Your task to perform on an android device: Search for vegetarian restaurants on Maps Image 0: 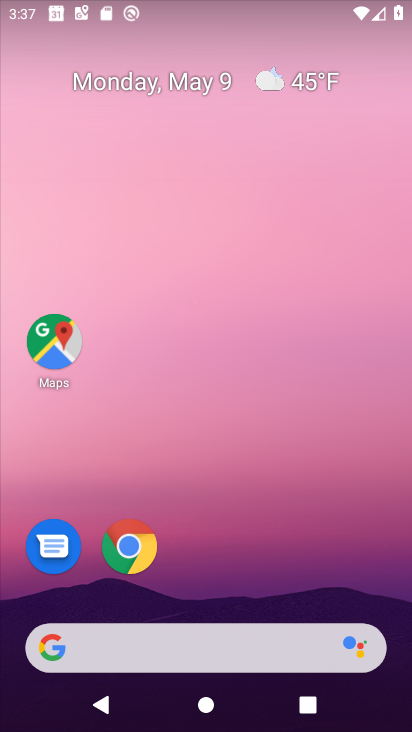
Step 0: drag from (208, 614) to (269, 322)
Your task to perform on an android device: Search for vegetarian restaurants on Maps Image 1: 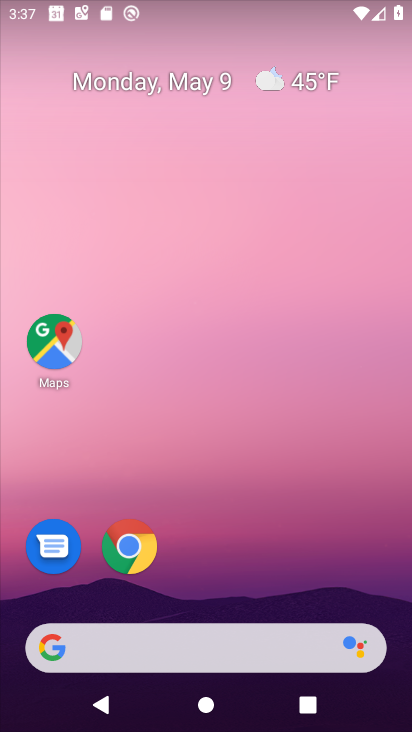
Step 1: click (51, 329)
Your task to perform on an android device: Search for vegetarian restaurants on Maps Image 2: 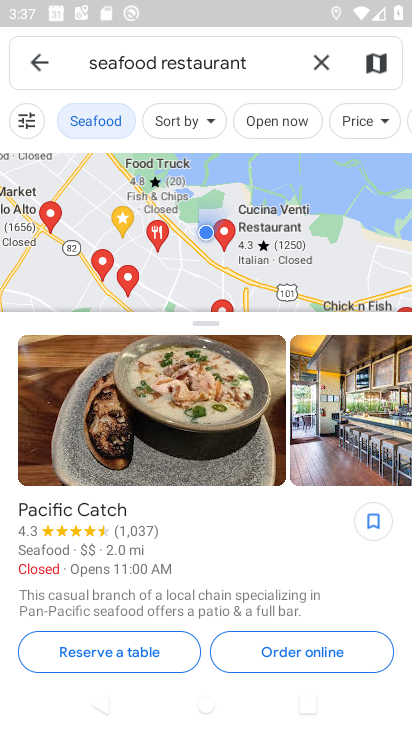
Step 2: click (338, 59)
Your task to perform on an android device: Search for vegetarian restaurants on Maps Image 3: 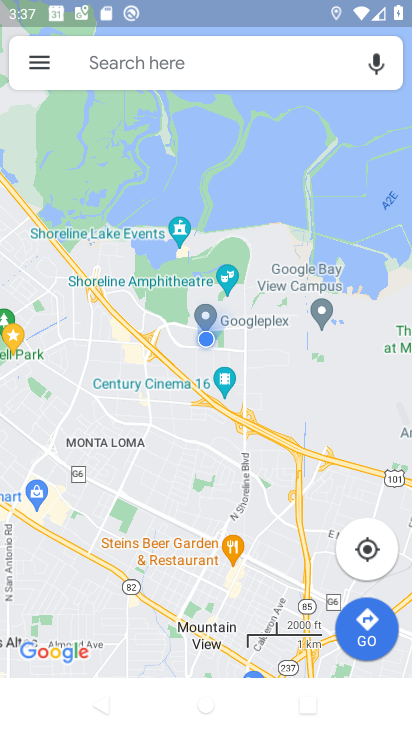
Step 3: click (316, 62)
Your task to perform on an android device: Search for vegetarian restaurants on Maps Image 4: 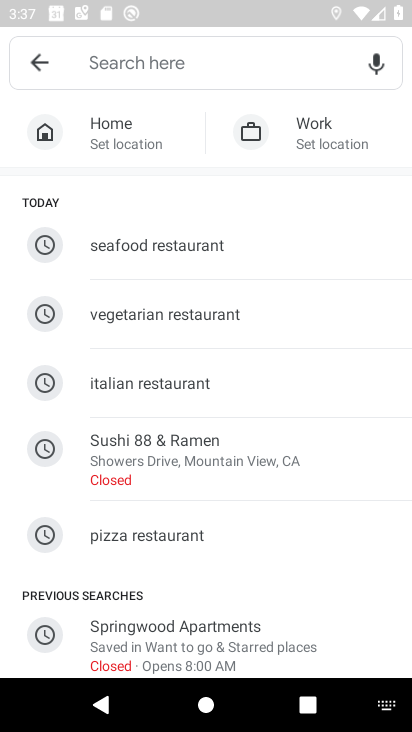
Step 4: type "cw"
Your task to perform on an android device: Search for vegetarian restaurants on Maps Image 5: 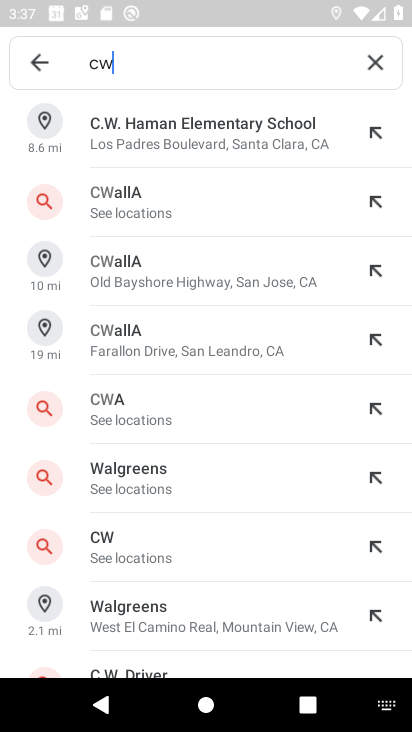
Step 5: click (386, 71)
Your task to perform on an android device: Search for vegetarian restaurants on Maps Image 6: 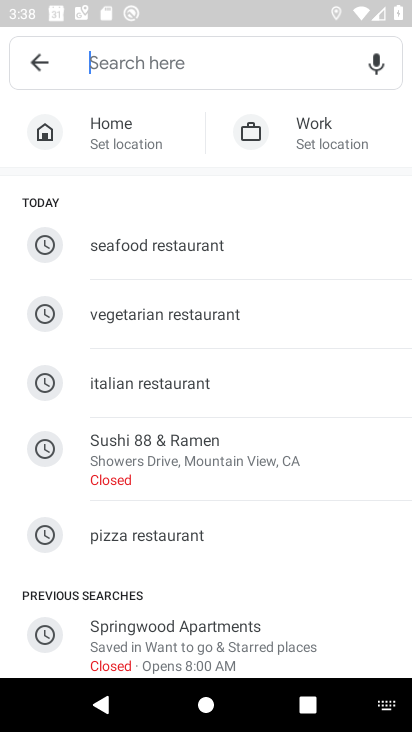
Step 6: type "vegetarian restaurants "
Your task to perform on an android device: Search for vegetarian restaurants on Maps Image 7: 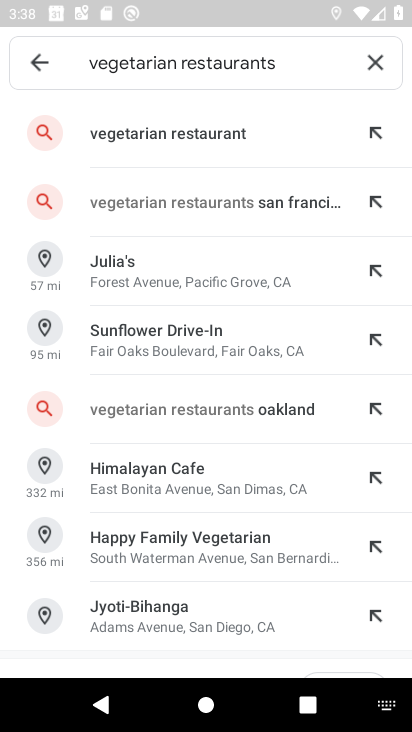
Step 7: click (260, 150)
Your task to perform on an android device: Search for vegetarian restaurants on Maps Image 8: 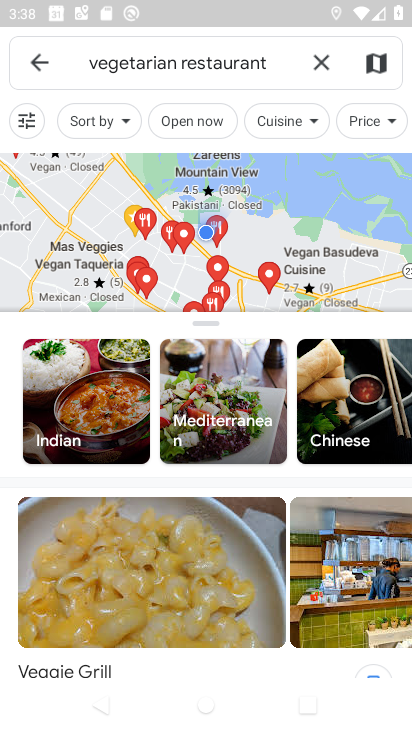
Step 8: task complete